Your task to perform on an android device: change alarm snooze length Image 0: 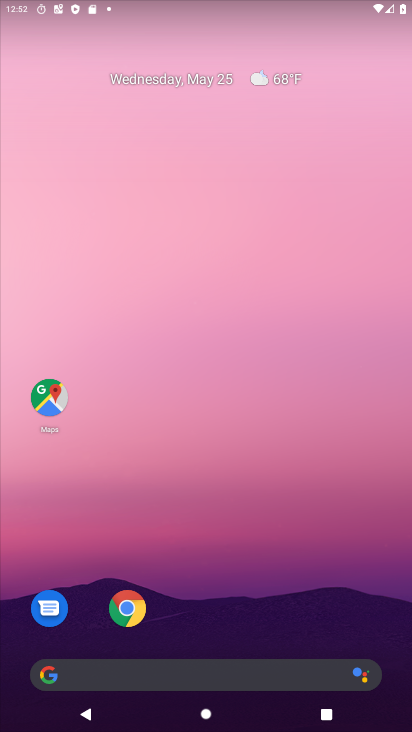
Step 0: drag from (261, 619) to (249, 27)
Your task to perform on an android device: change alarm snooze length Image 1: 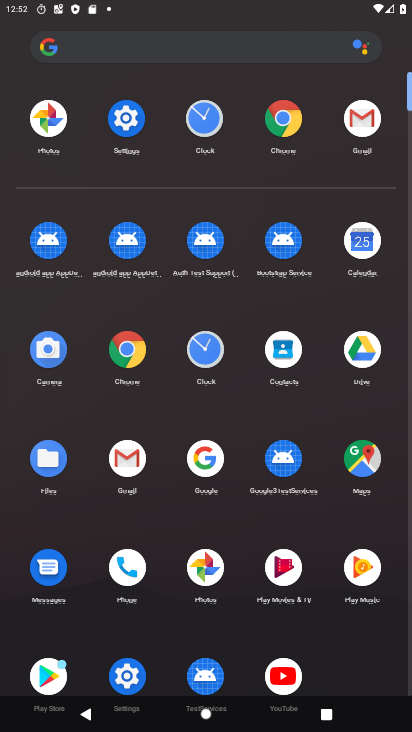
Step 1: click (215, 356)
Your task to perform on an android device: change alarm snooze length Image 2: 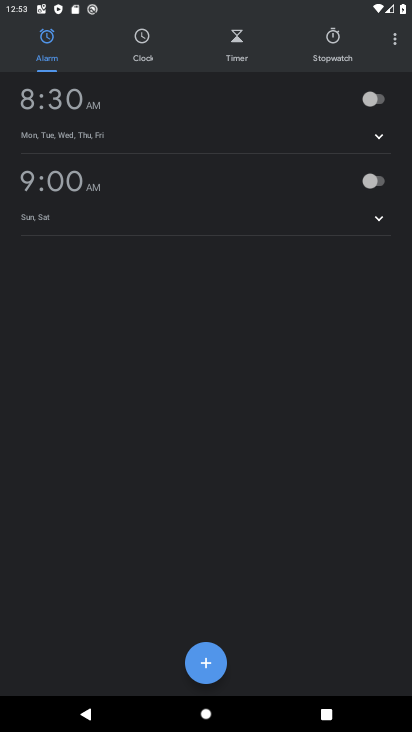
Step 2: click (387, 34)
Your task to perform on an android device: change alarm snooze length Image 3: 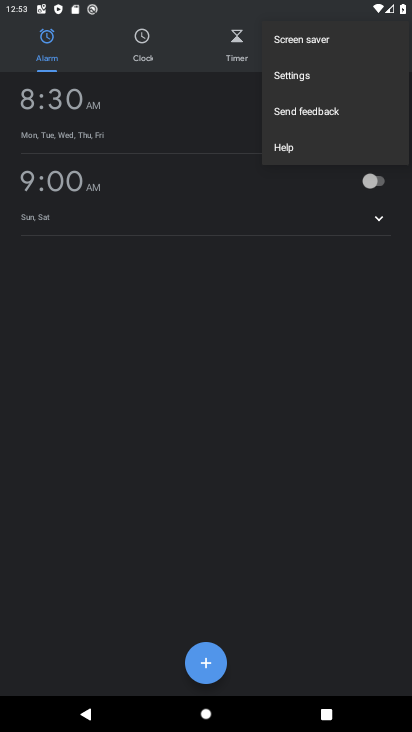
Step 3: click (318, 77)
Your task to perform on an android device: change alarm snooze length Image 4: 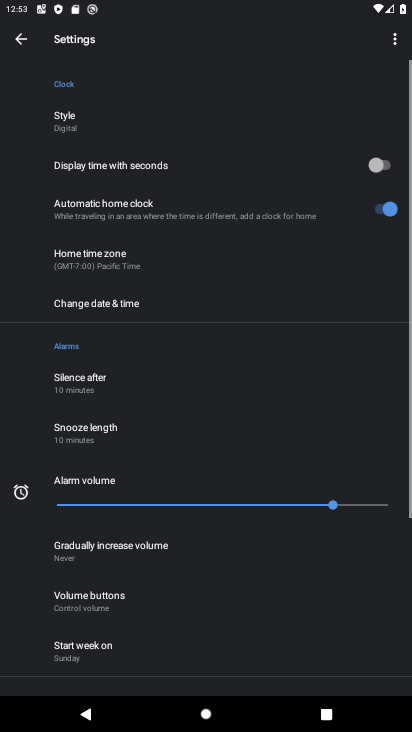
Step 4: drag from (293, 613) to (307, 182)
Your task to perform on an android device: change alarm snooze length Image 5: 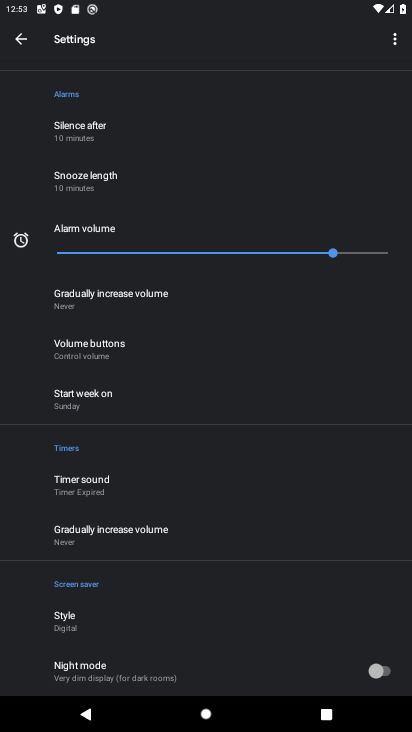
Step 5: click (163, 191)
Your task to perform on an android device: change alarm snooze length Image 6: 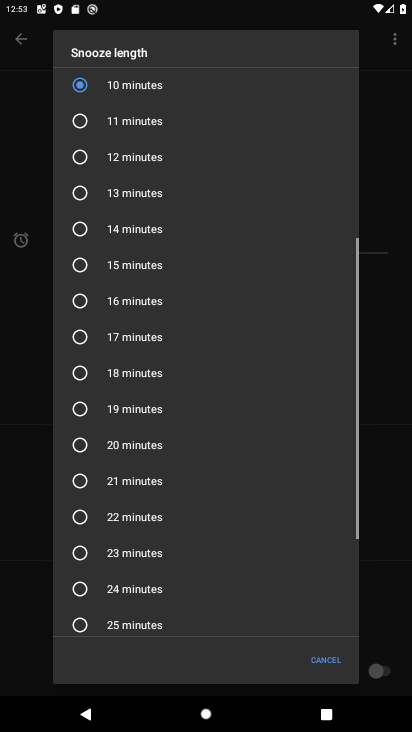
Step 6: click (201, 465)
Your task to perform on an android device: change alarm snooze length Image 7: 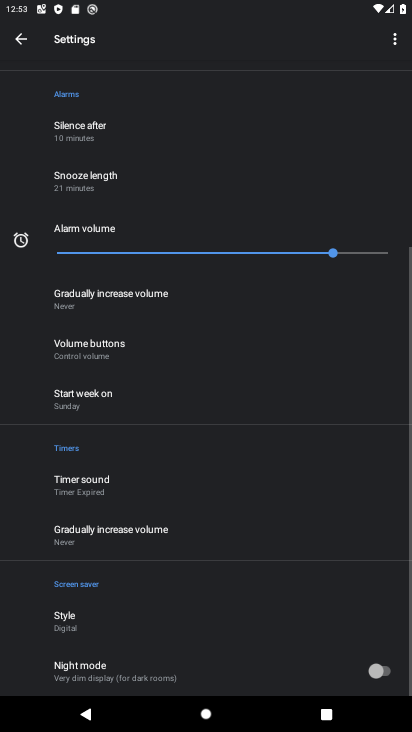
Step 7: task complete